Your task to perform on an android device: turn notification dots off Image 0: 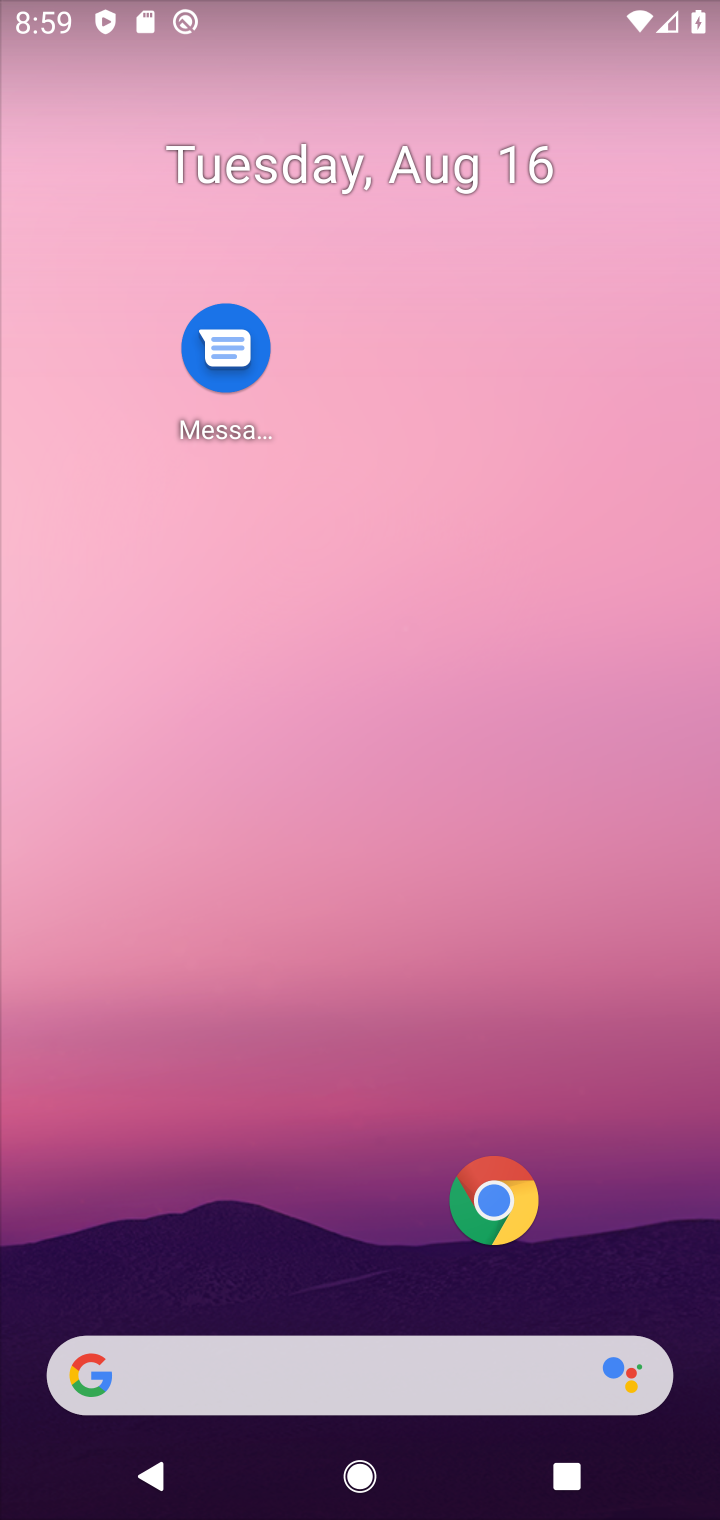
Step 0: click (321, 203)
Your task to perform on an android device: turn notification dots off Image 1: 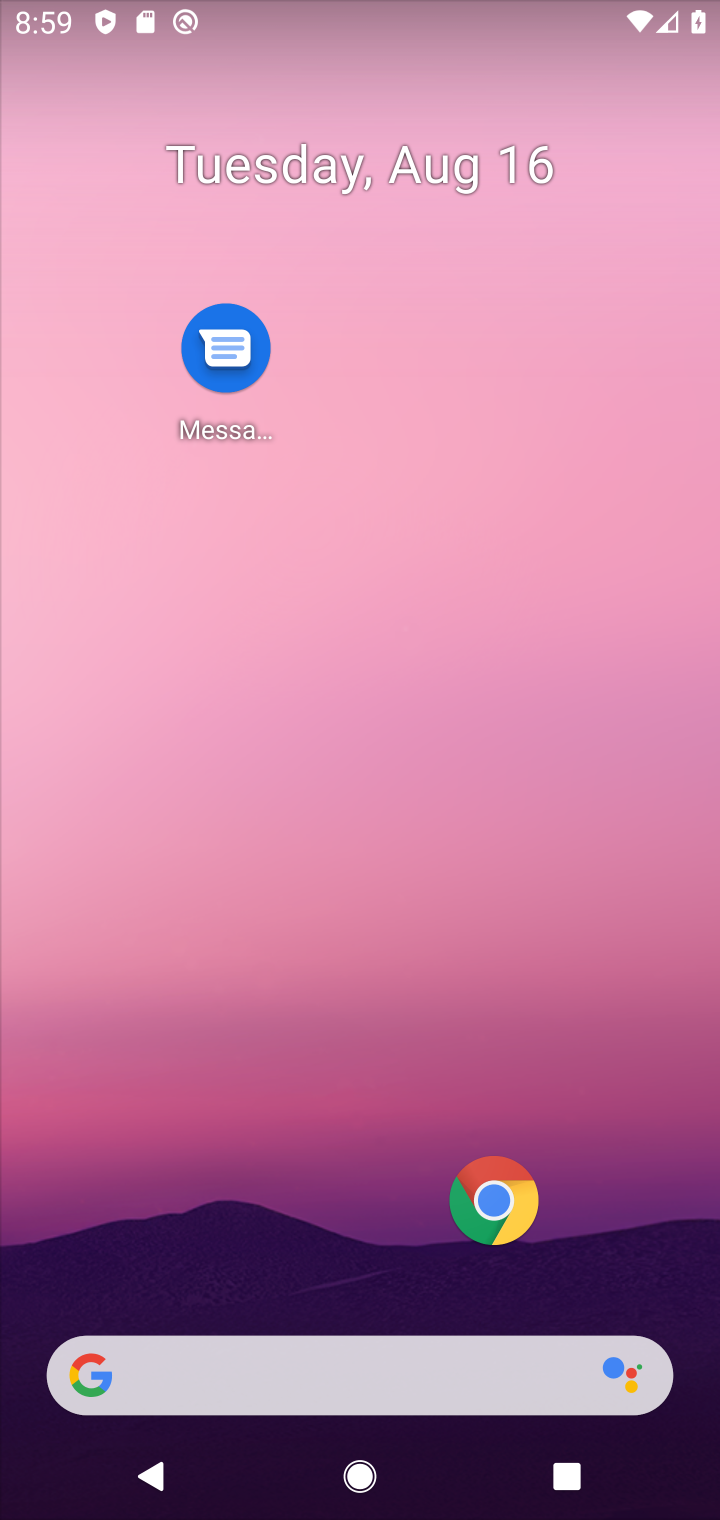
Step 1: drag from (338, 1232) to (344, 67)
Your task to perform on an android device: turn notification dots off Image 2: 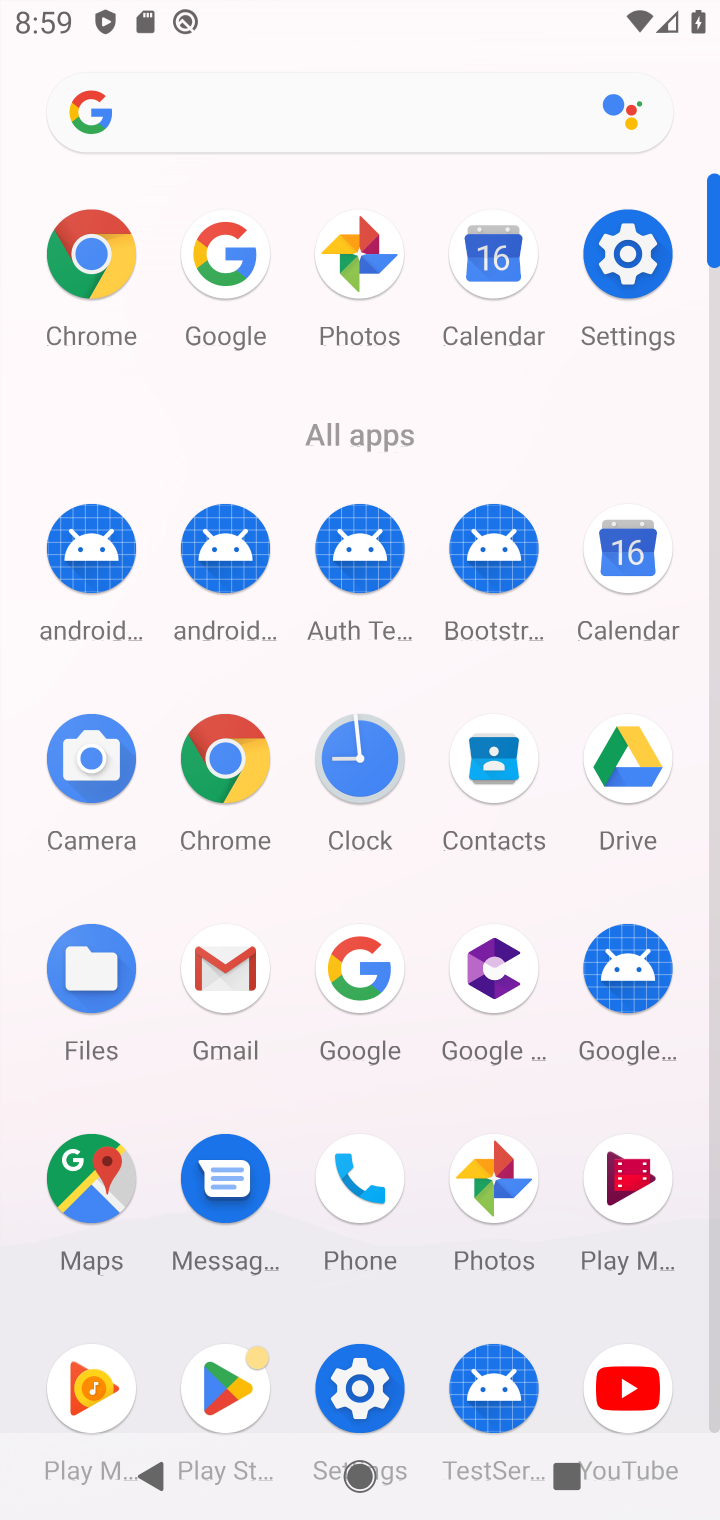
Step 2: click (643, 249)
Your task to perform on an android device: turn notification dots off Image 3: 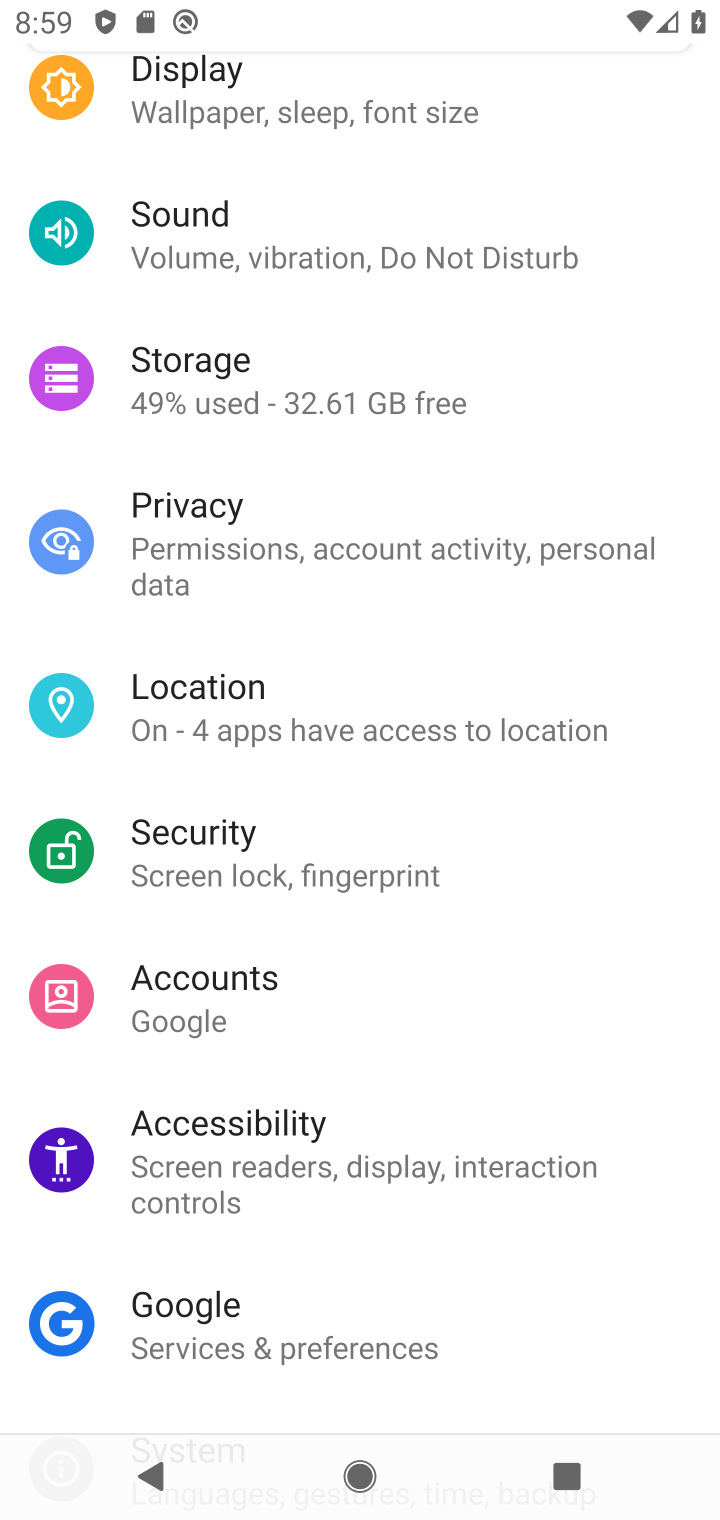
Step 3: drag from (297, 280) to (405, 1192)
Your task to perform on an android device: turn notification dots off Image 4: 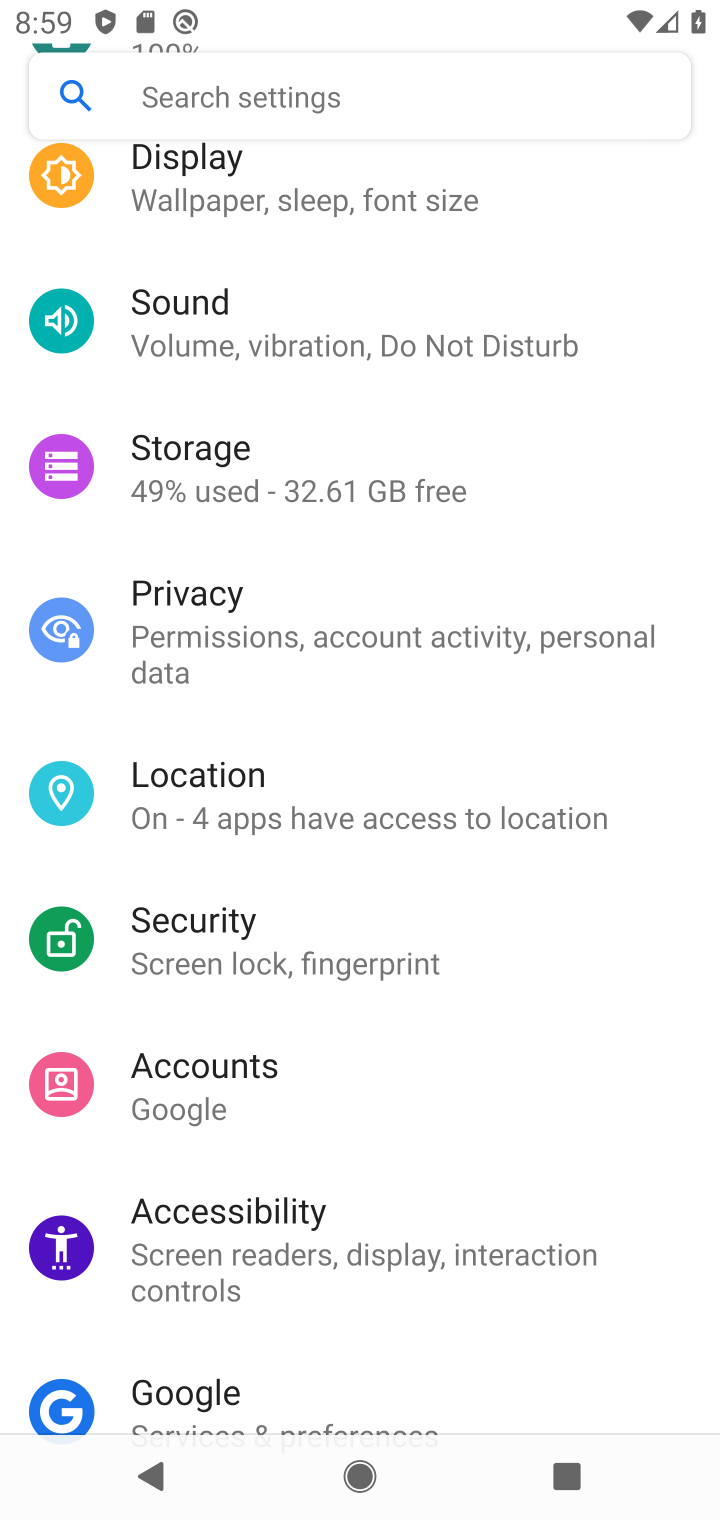
Step 4: click (356, 1207)
Your task to perform on an android device: turn notification dots off Image 5: 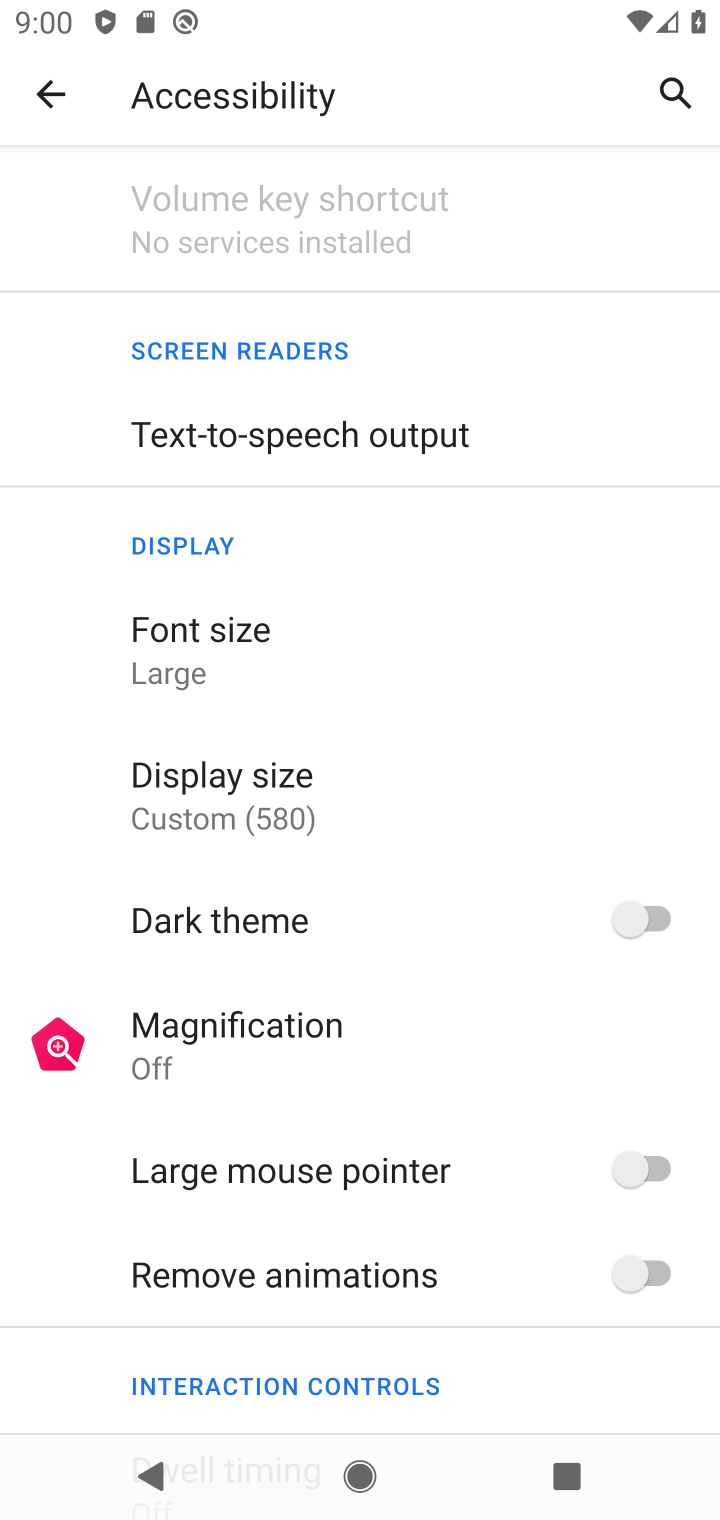
Step 5: click (28, 98)
Your task to perform on an android device: turn notification dots off Image 6: 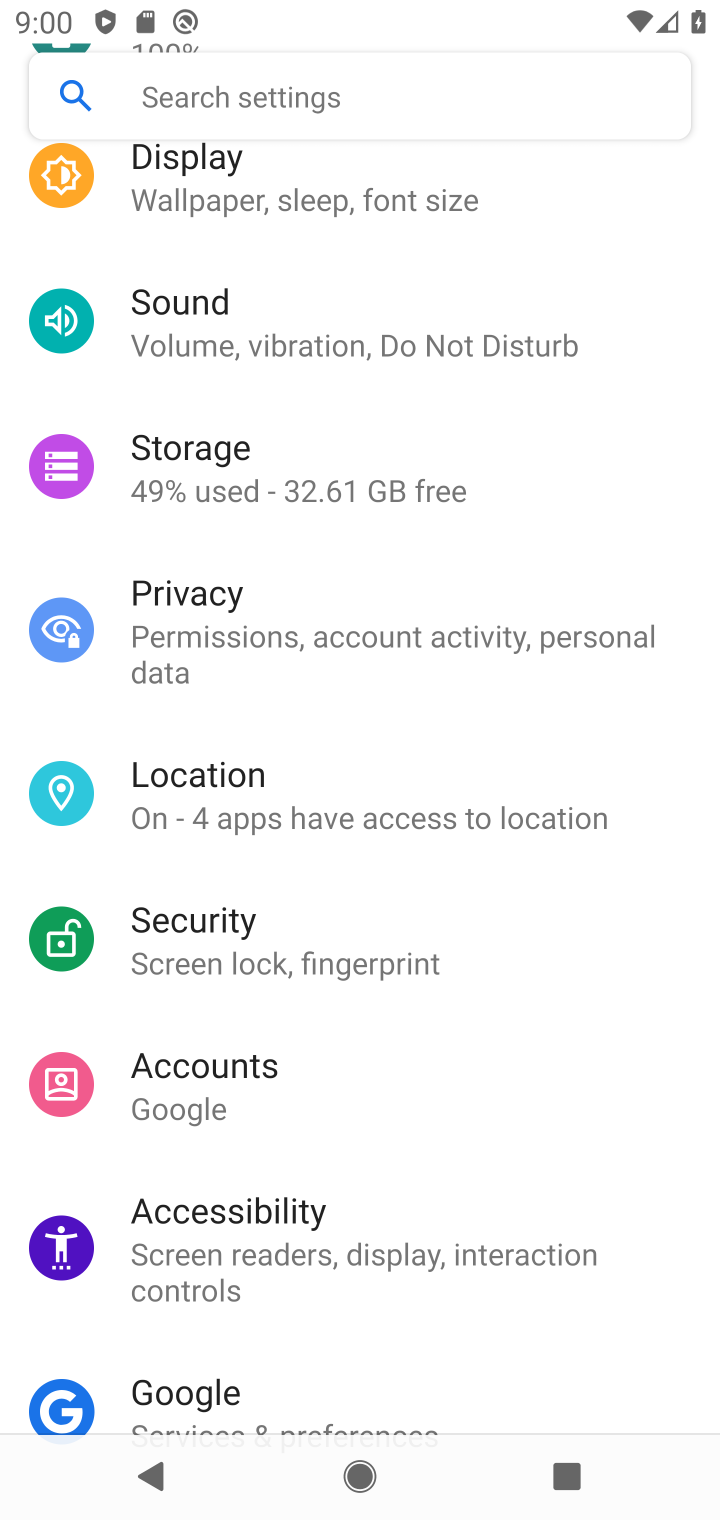
Step 6: drag from (330, 1330) to (438, 1310)
Your task to perform on an android device: turn notification dots off Image 7: 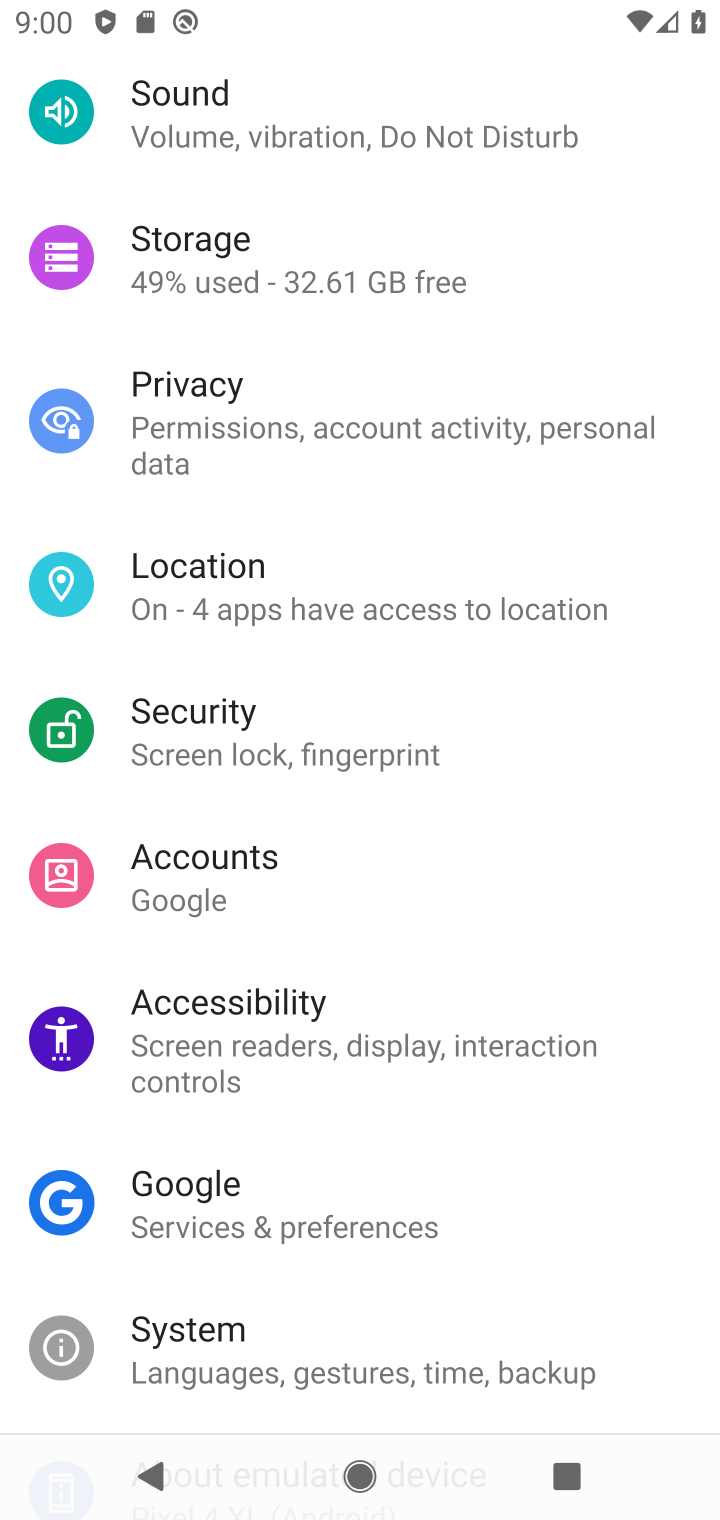
Step 7: drag from (450, 878) to (473, 1337)
Your task to perform on an android device: turn notification dots off Image 8: 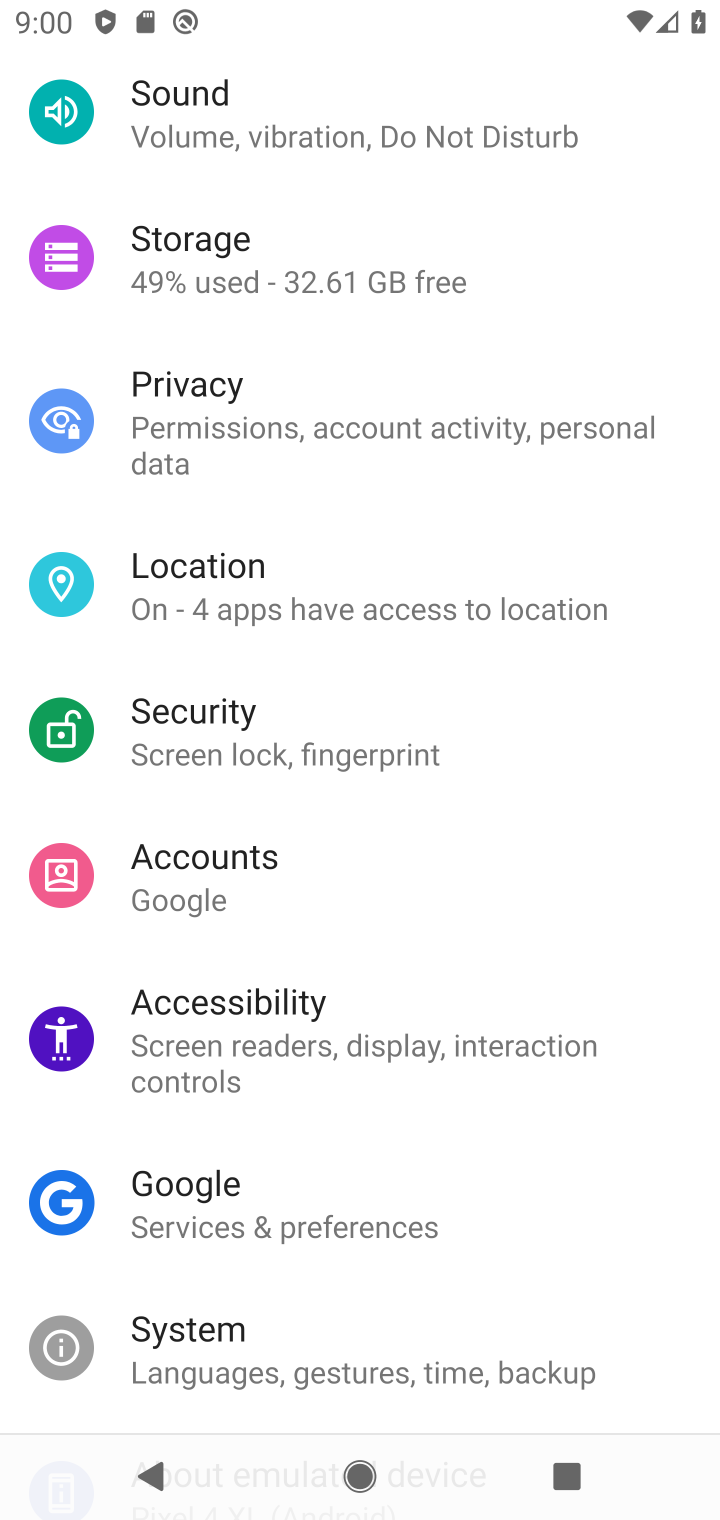
Step 8: click (400, 579)
Your task to perform on an android device: turn notification dots off Image 9: 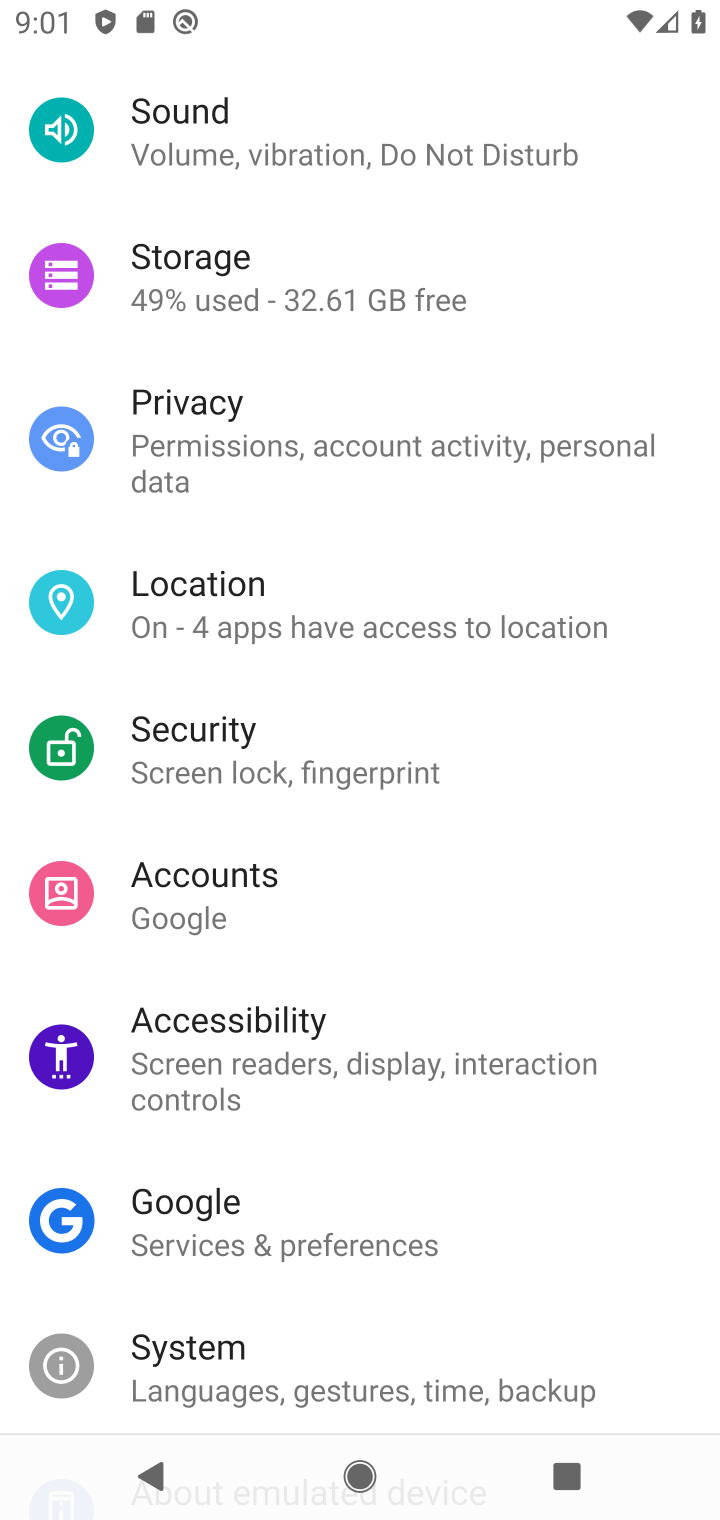
Step 9: drag from (340, 907) to (500, 1436)
Your task to perform on an android device: turn notification dots off Image 10: 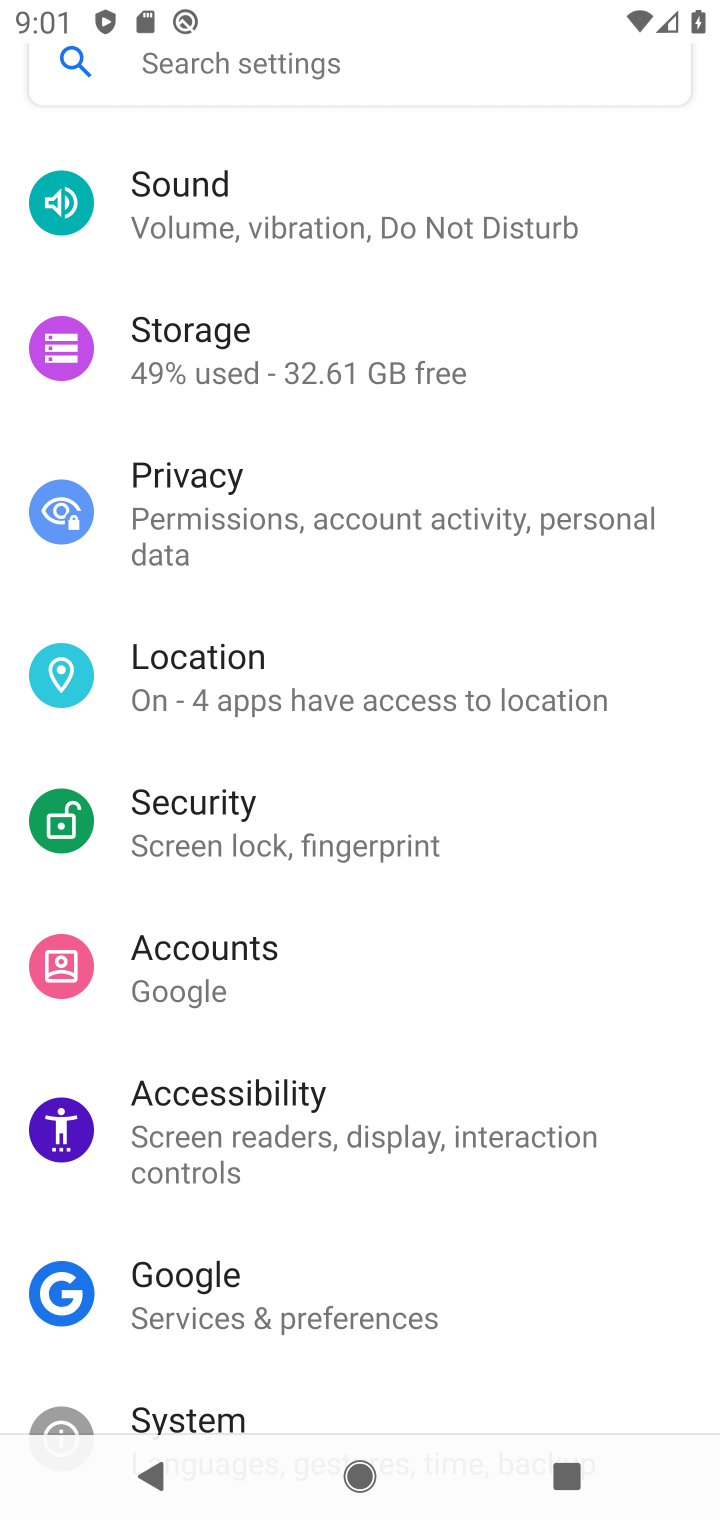
Step 10: drag from (359, 283) to (399, 1519)
Your task to perform on an android device: turn notification dots off Image 11: 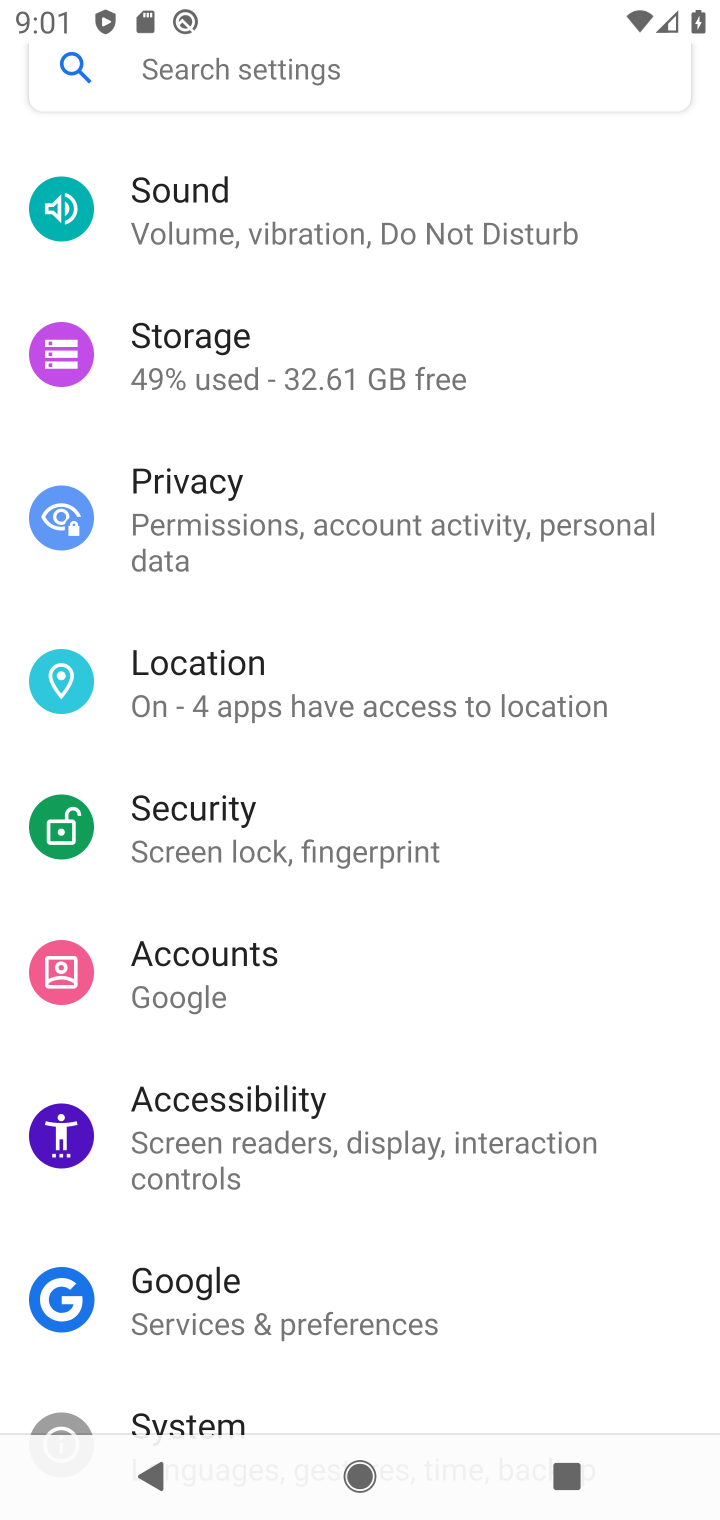
Step 11: drag from (343, 618) to (449, 1324)
Your task to perform on an android device: turn notification dots off Image 12: 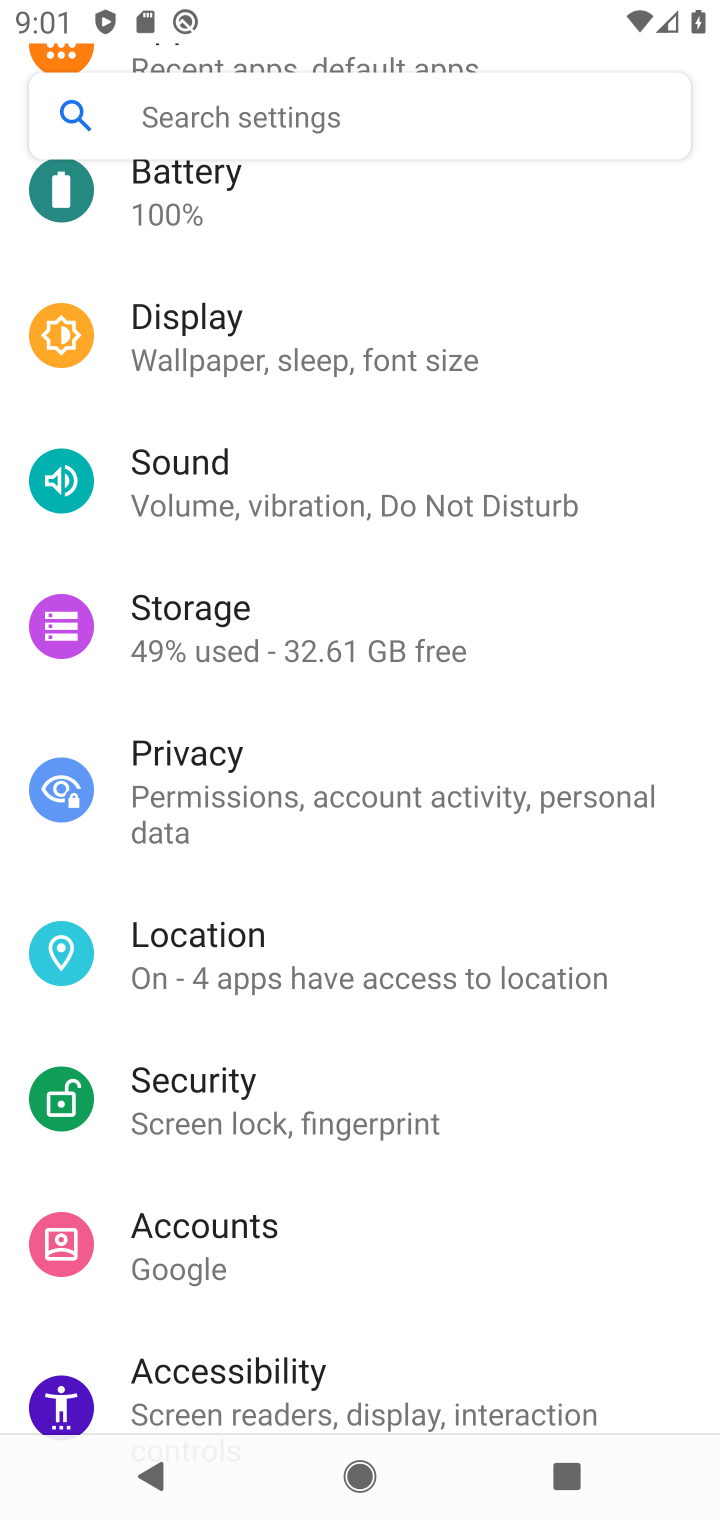
Step 12: drag from (441, 746) to (507, 1237)
Your task to perform on an android device: turn notification dots off Image 13: 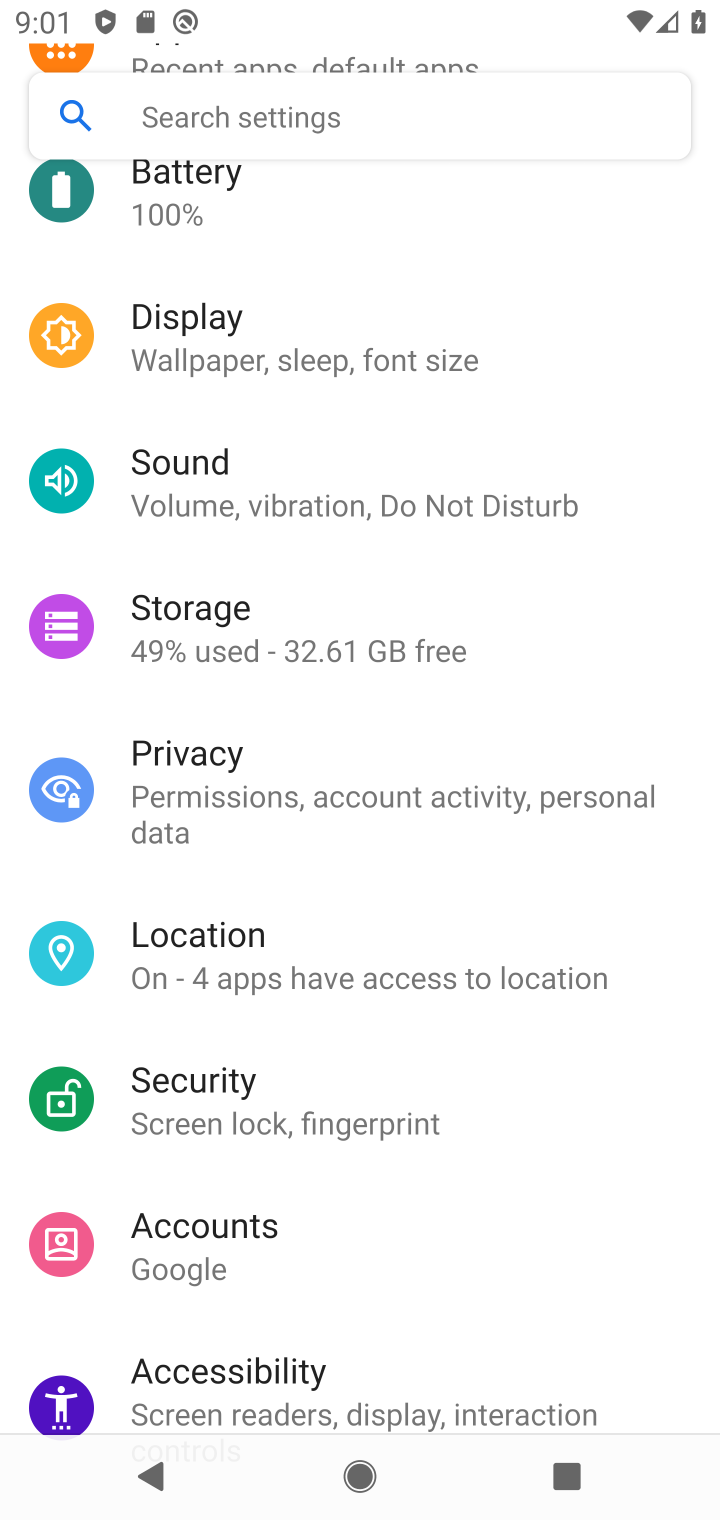
Step 13: drag from (306, 216) to (391, 1011)
Your task to perform on an android device: turn notification dots off Image 14: 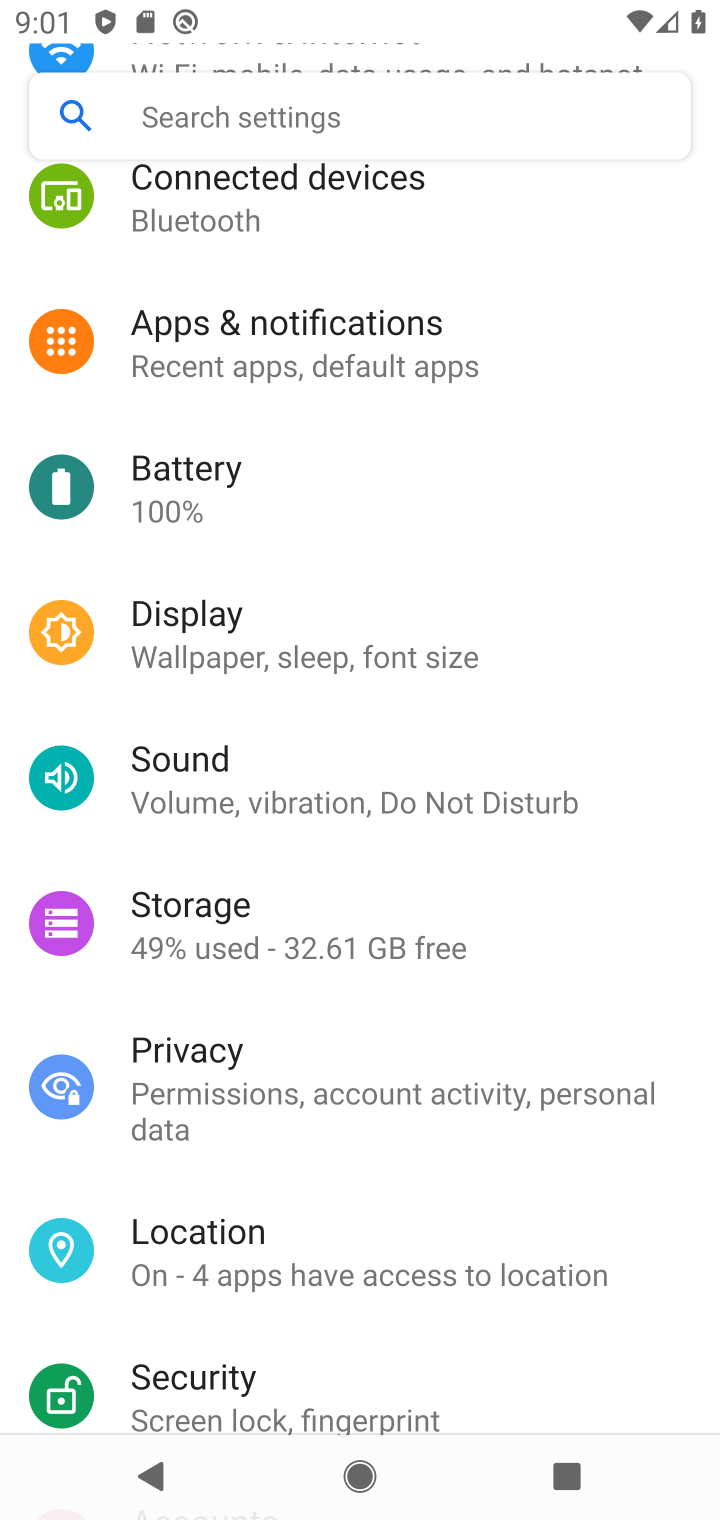
Step 14: click (267, 333)
Your task to perform on an android device: turn notification dots off Image 15: 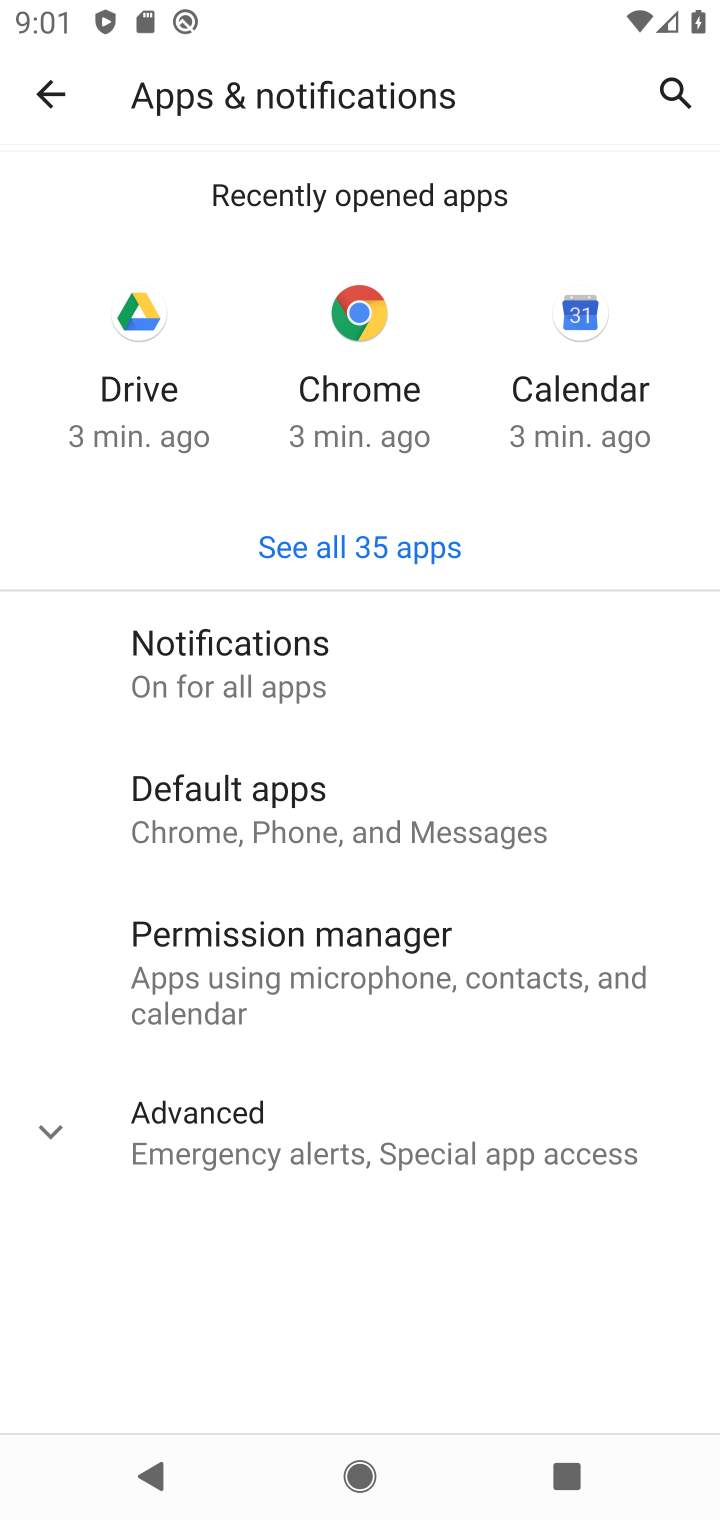
Step 15: click (308, 672)
Your task to perform on an android device: turn notification dots off Image 16: 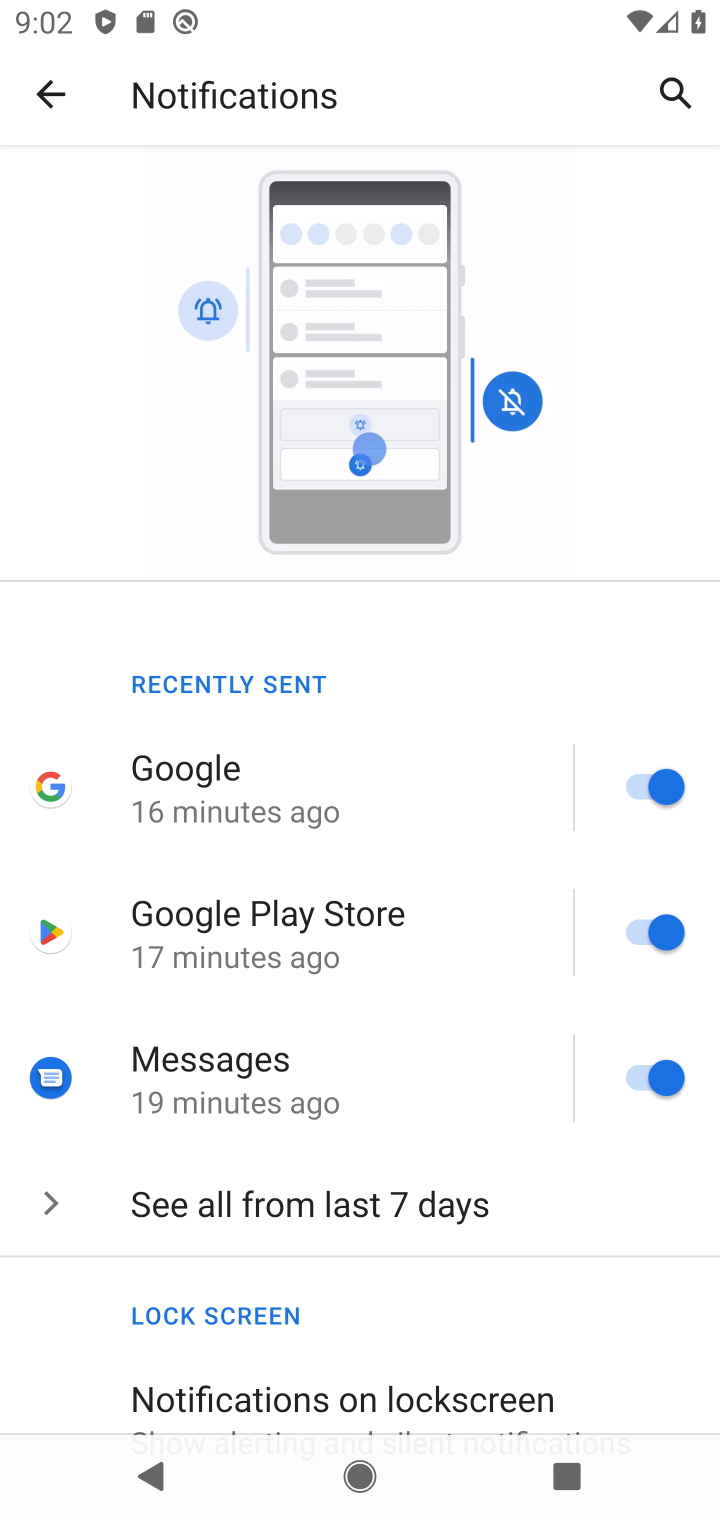
Step 16: click (338, 426)
Your task to perform on an android device: turn notification dots off Image 17: 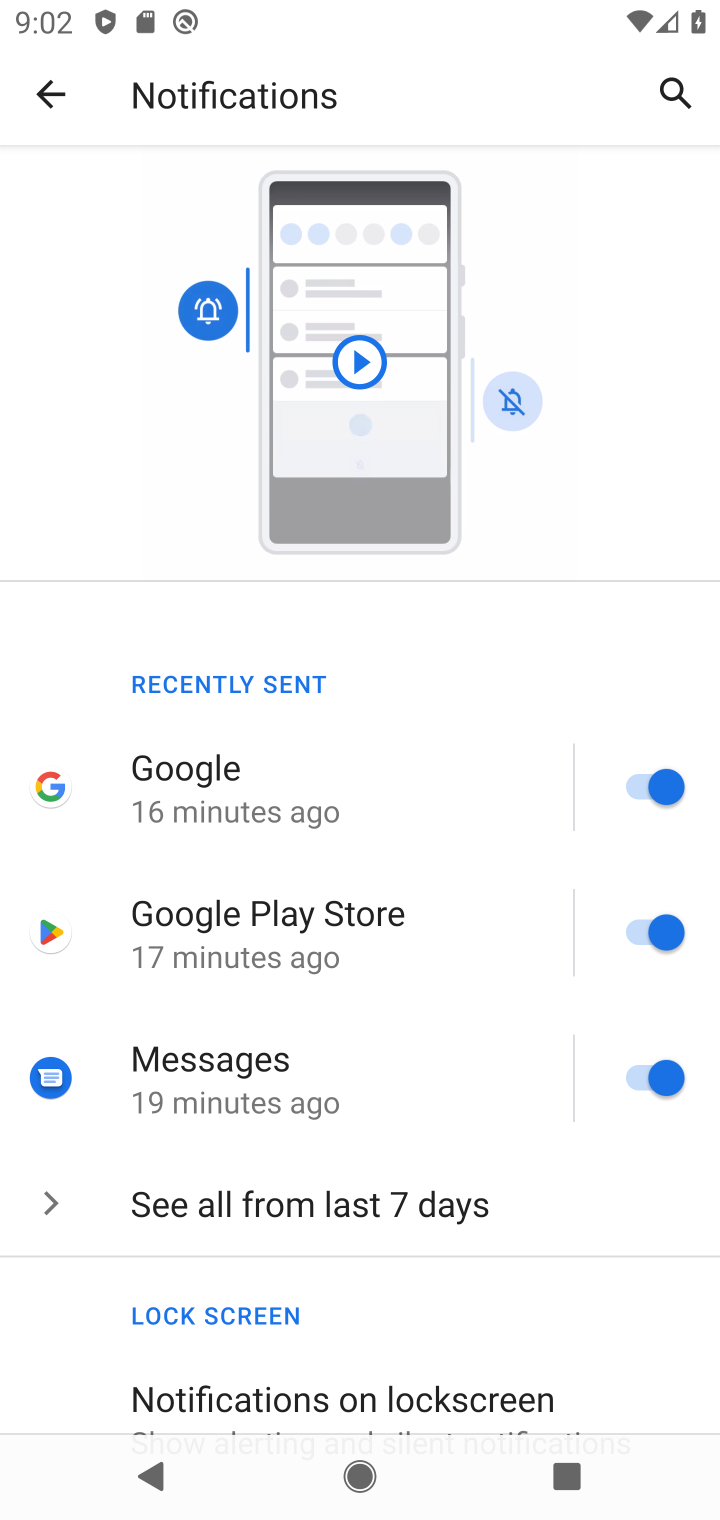
Step 17: drag from (248, 1222) to (304, 591)
Your task to perform on an android device: turn notification dots off Image 18: 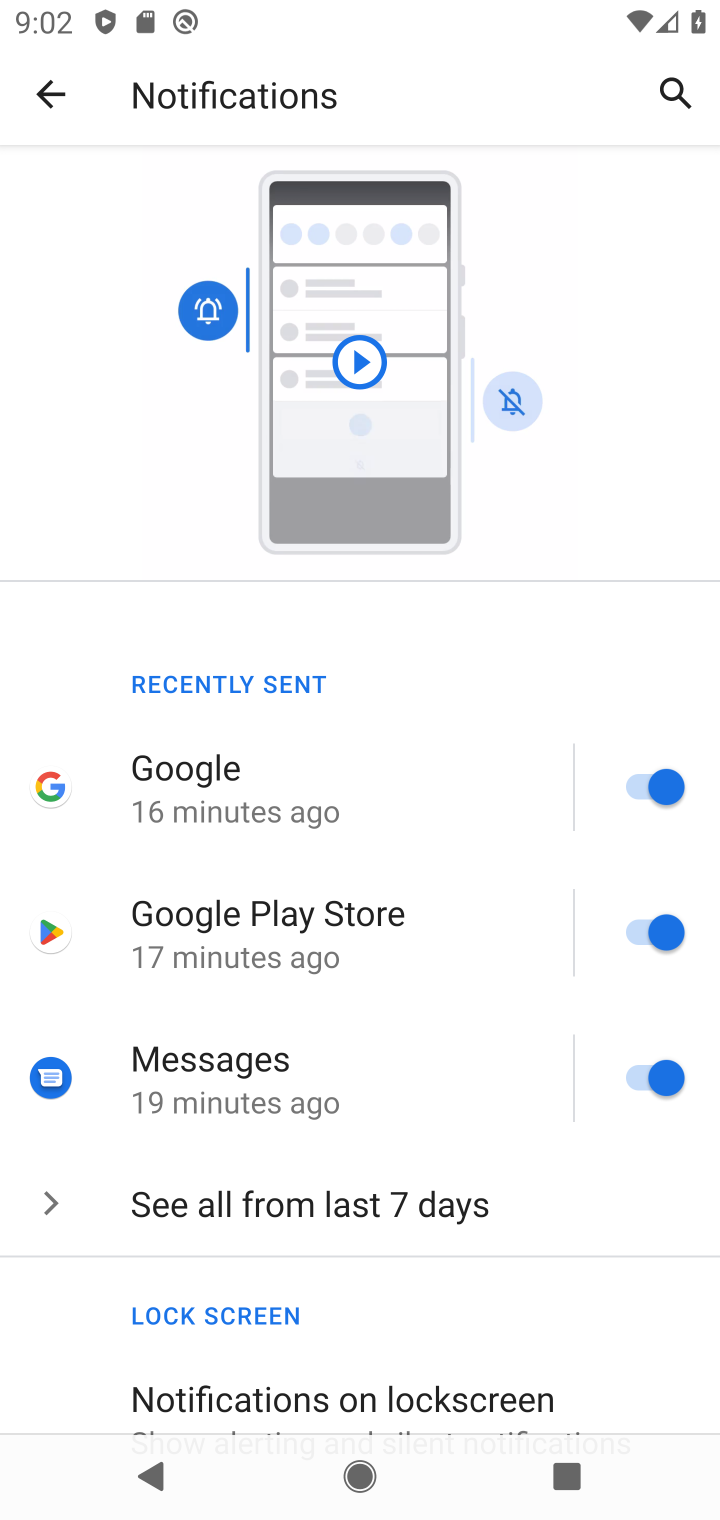
Step 18: drag from (412, 653) to (412, 563)
Your task to perform on an android device: turn notification dots off Image 19: 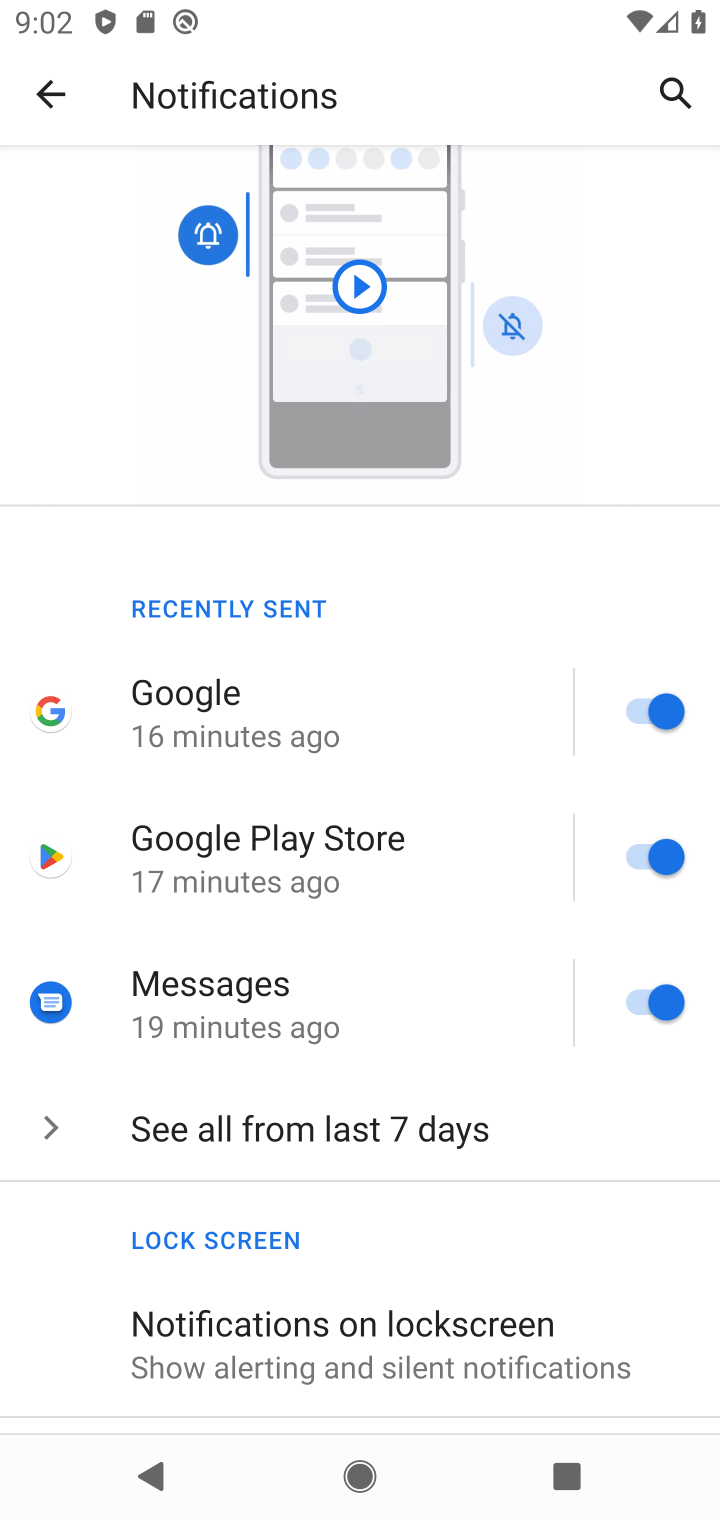
Step 19: drag from (395, 1197) to (411, 259)
Your task to perform on an android device: turn notification dots off Image 20: 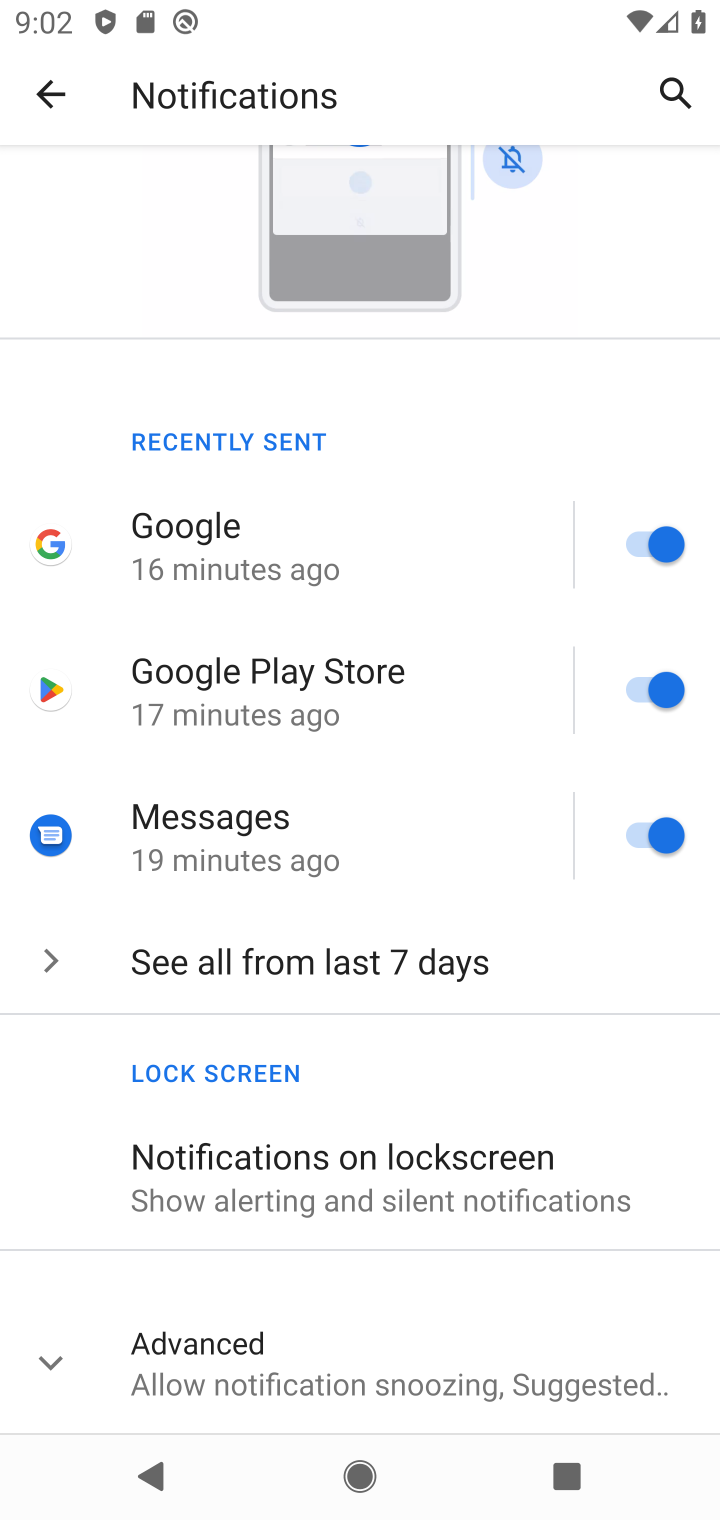
Step 20: click (157, 1356)
Your task to perform on an android device: turn notification dots off Image 21: 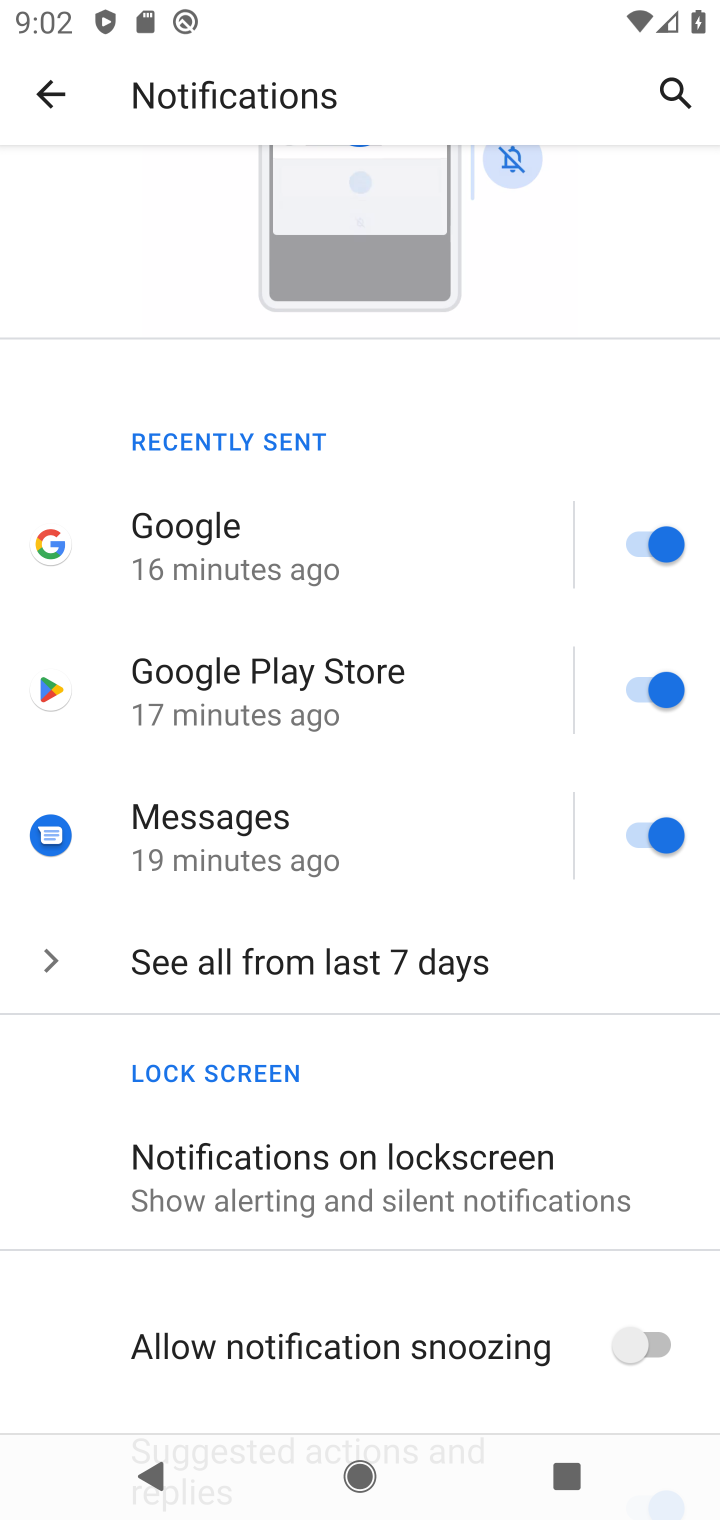
Step 21: drag from (326, 1253) to (360, 389)
Your task to perform on an android device: turn notification dots off Image 22: 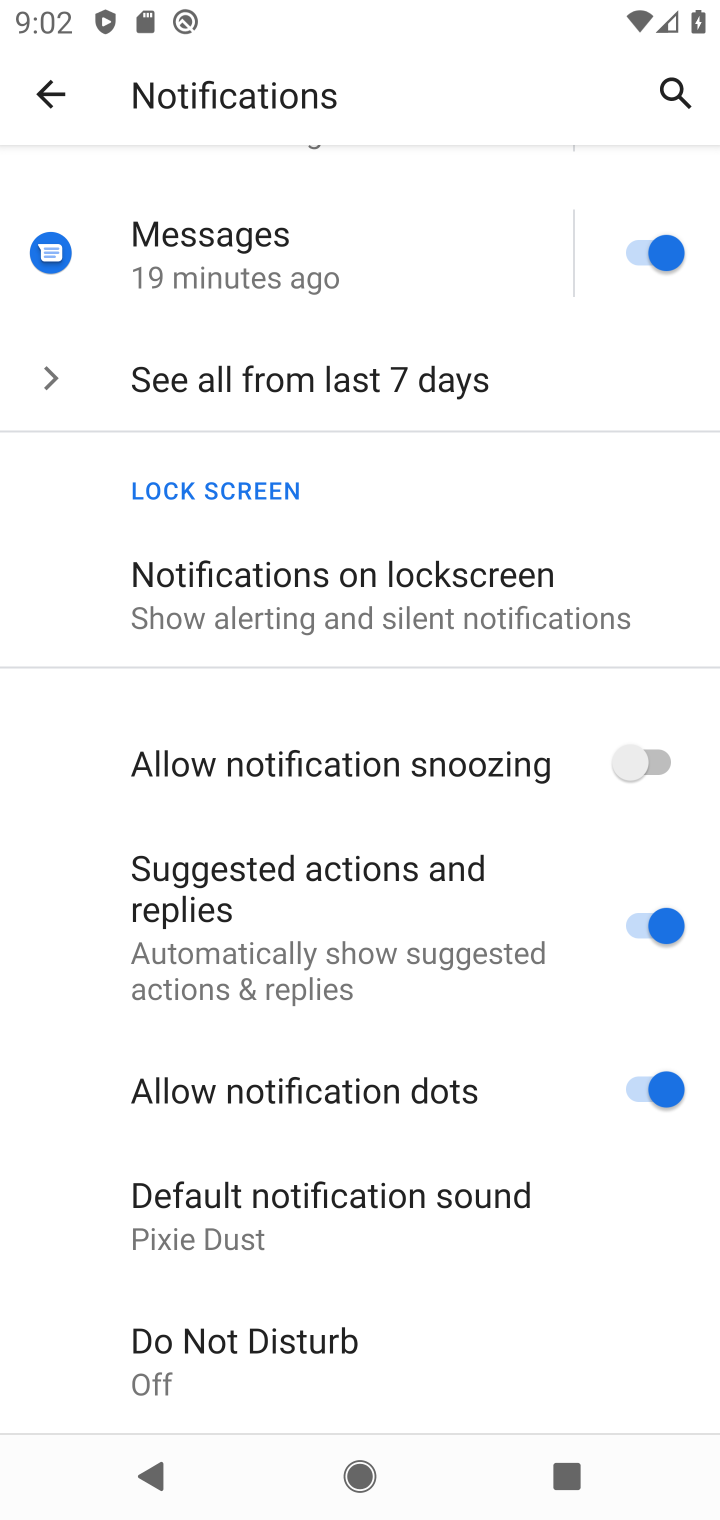
Step 22: click (646, 1106)
Your task to perform on an android device: turn notification dots off Image 23: 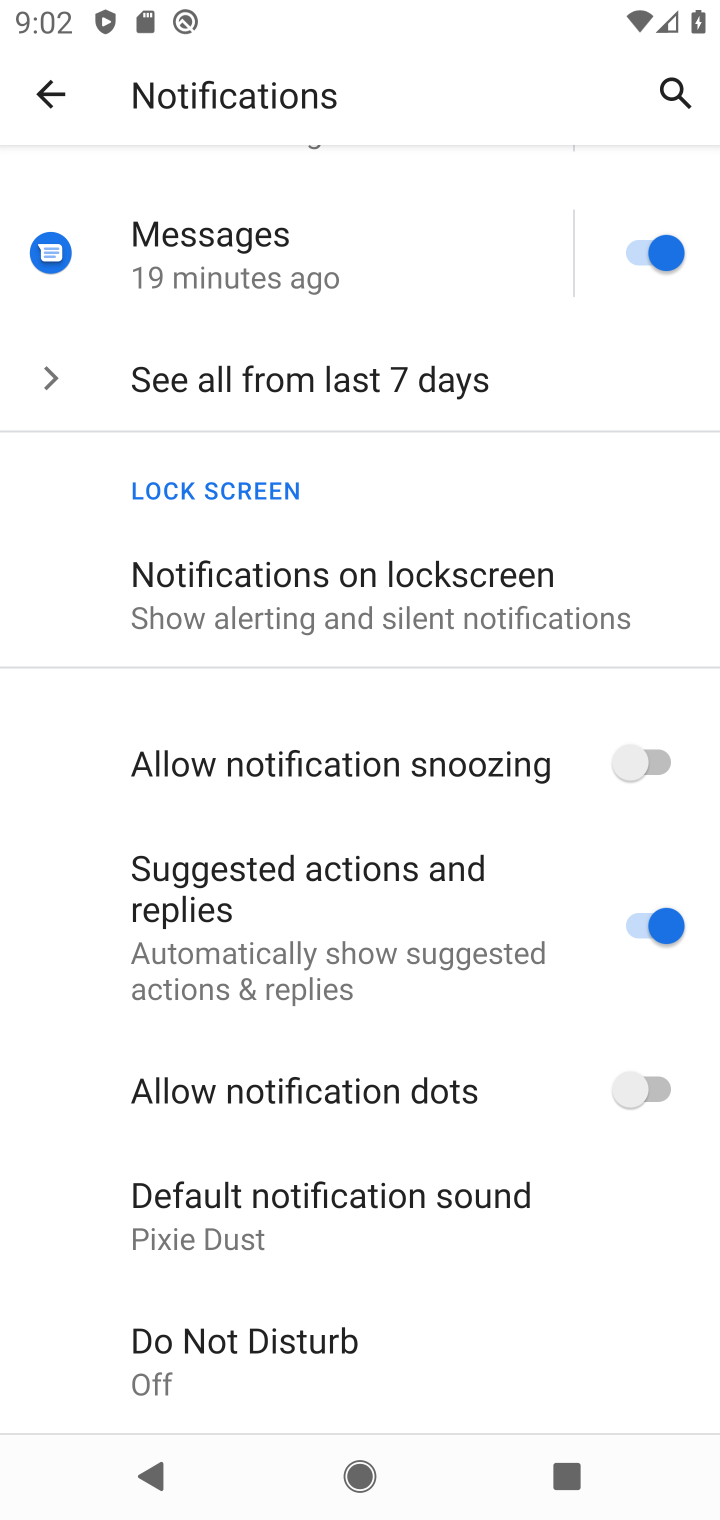
Step 23: task complete